Your task to perform on an android device: delete a single message in the gmail app Image 0: 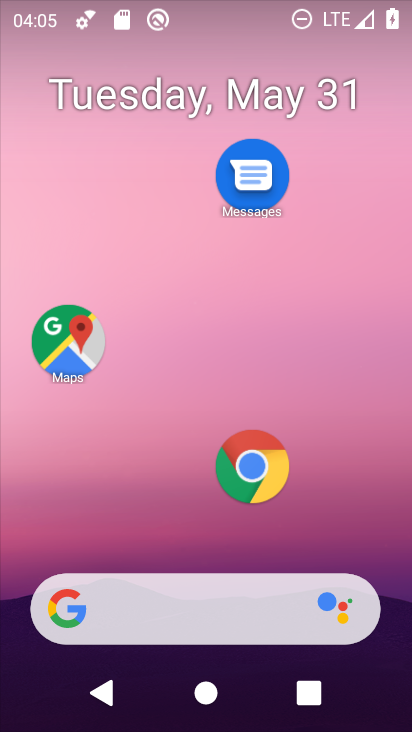
Step 0: drag from (126, 524) to (172, 126)
Your task to perform on an android device: delete a single message in the gmail app Image 1: 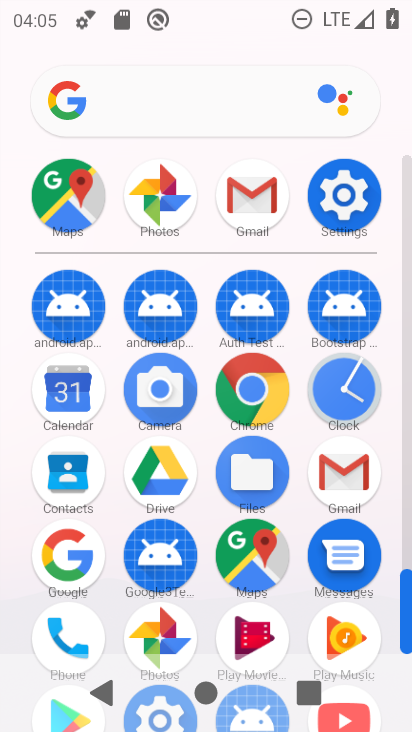
Step 1: click (257, 196)
Your task to perform on an android device: delete a single message in the gmail app Image 2: 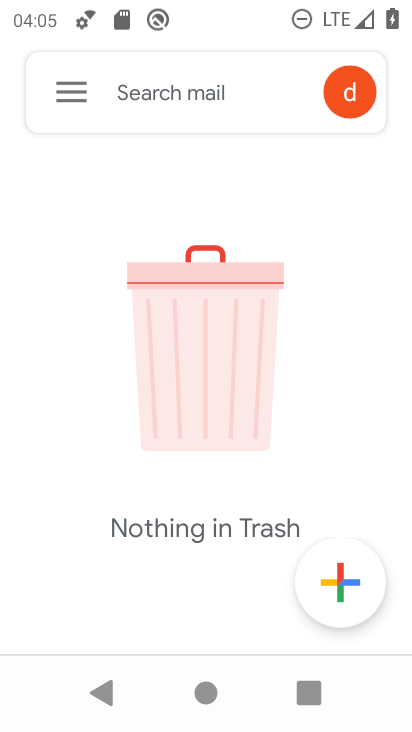
Step 2: click (74, 95)
Your task to perform on an android device: delete a single message in the gmail app Image 3: 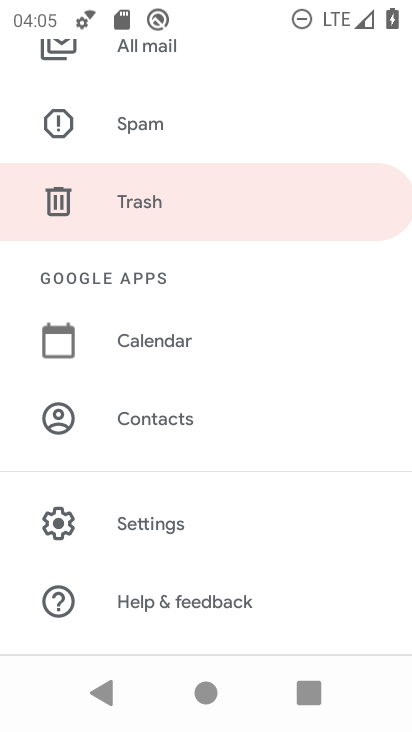
Step 3: click (163, 60)
Your task to perform on an android device: delete a single message in the gmail app Image 4: 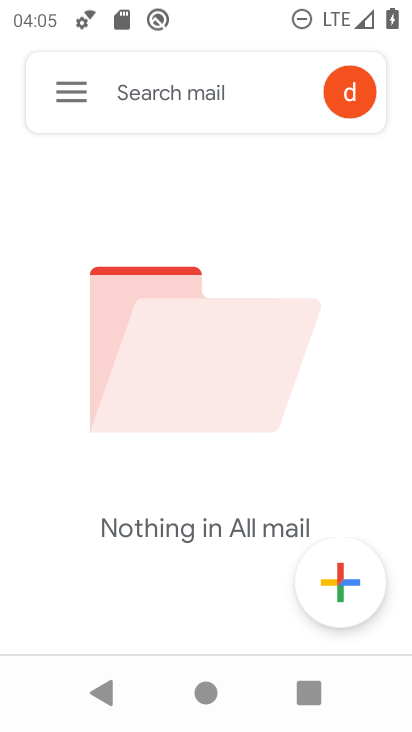
Step 4: task complete